Your task to perform on an android device: Open Reddit.com Image 0: 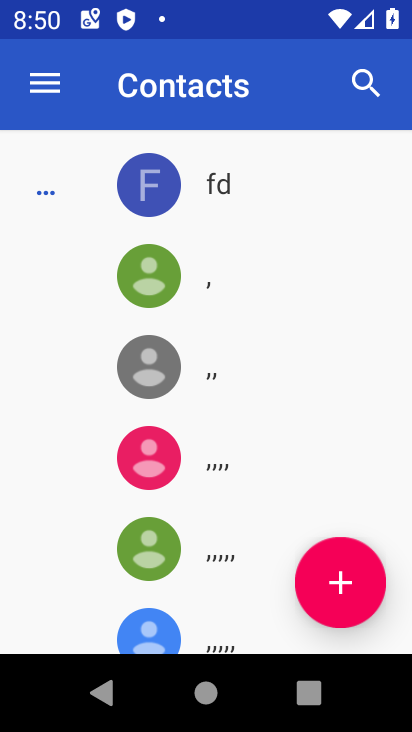
Step 0: task complete